Your task to perform on an android device: Go to location settings Image 0: 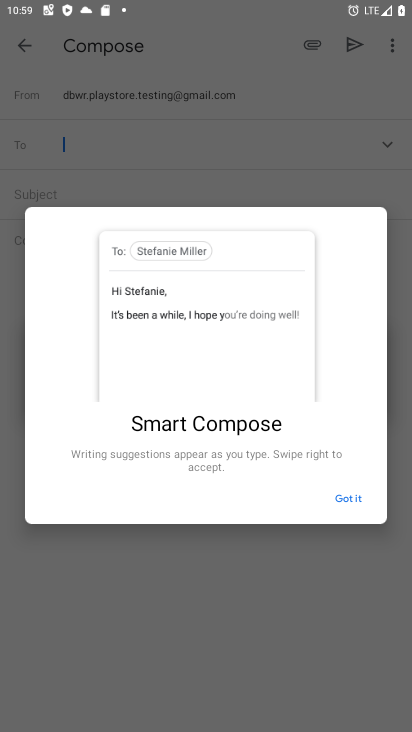
Step 0: press home button
Your task to perform on an android device: Go to location settings Image 1: 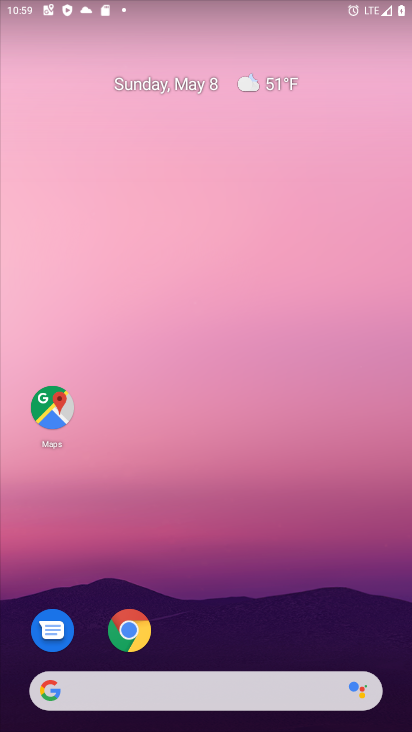
Step 1: drag from (344, 630) to (270, 38)
Your task to perform on an android device: Go to location settings Image 2: 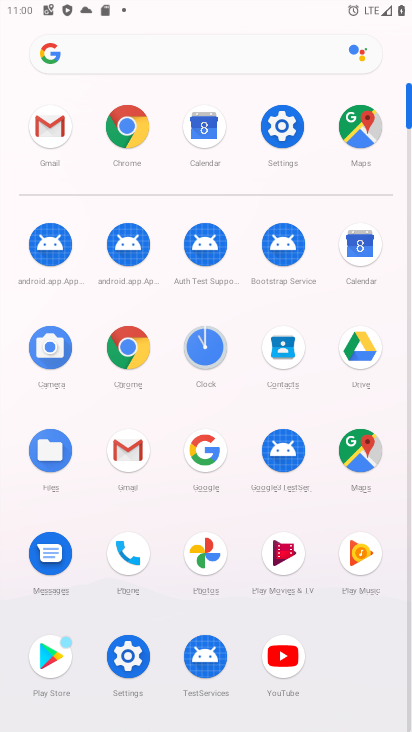
Step 2: click (114, 646)
Your task to perform on an android device: Go to location settings Image 3: 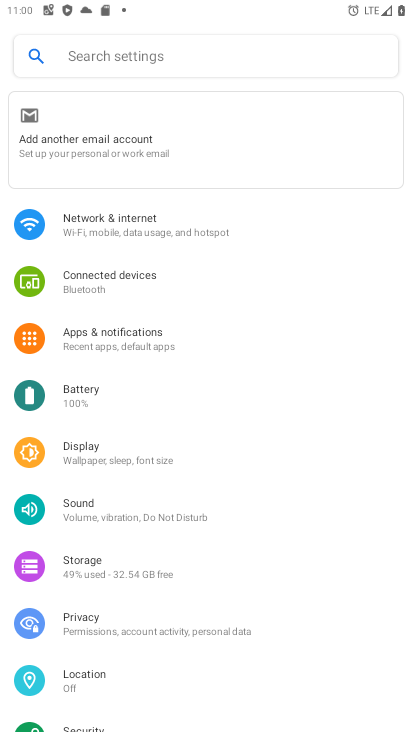
Step 3: click (132, 698)
Your task to perform on an android device: Go to location settings Image 4: 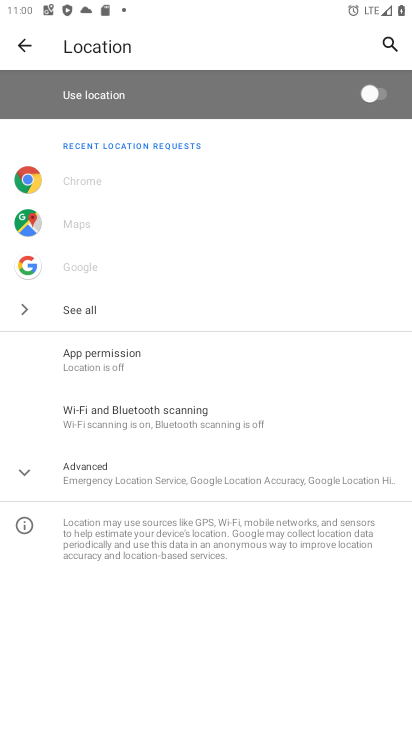
Step 4: task complete